Your task to perform on an android device: Open the calendar and show me this week's events? Image 0: 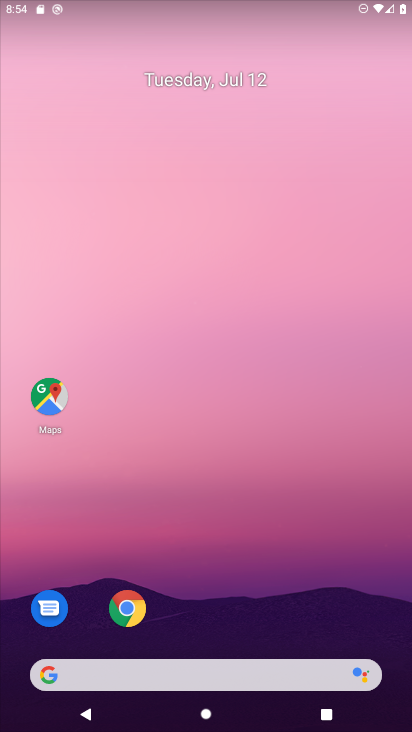
Step 0: click (208, 86)
Your task to perform on an android device: Open the calendar and show me this week's events? Image 1: 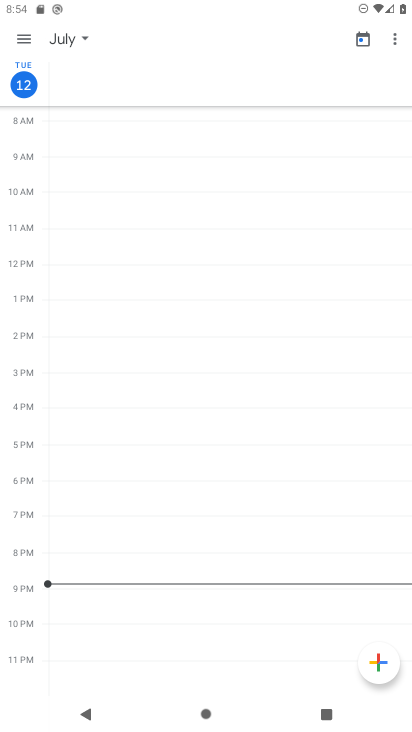
Step 1: click (69, 33)
Your task to perform on an android device: Open the calendar and show me this week's events? Image 2: 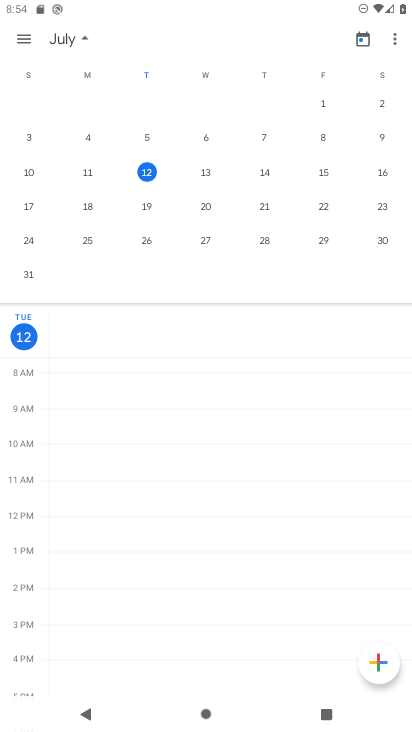
Step 2: click (22, 32)
Your task to perform on an android device: Open the calendar and show me this week's events? Image 3: 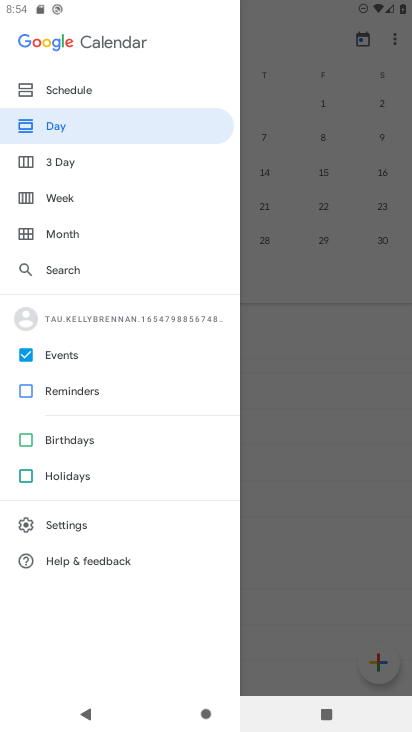
Step 3: click (77, 202)
Your task to perform on an android device: Open the calendar and show me this week's events? Image 4: 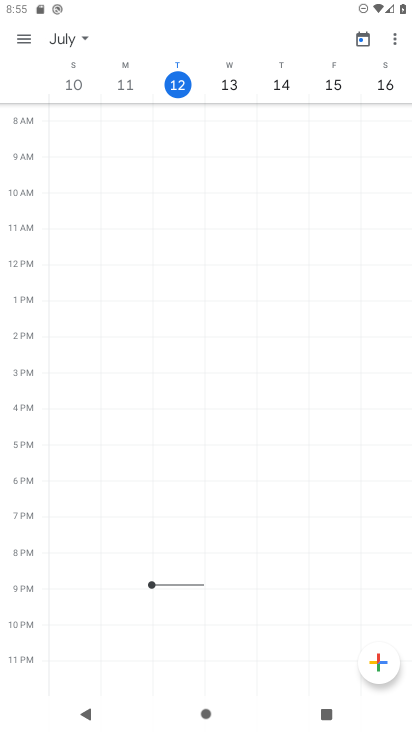
Step 4: task complete